Your task to perform on an android device: Open sound settings Image 0: 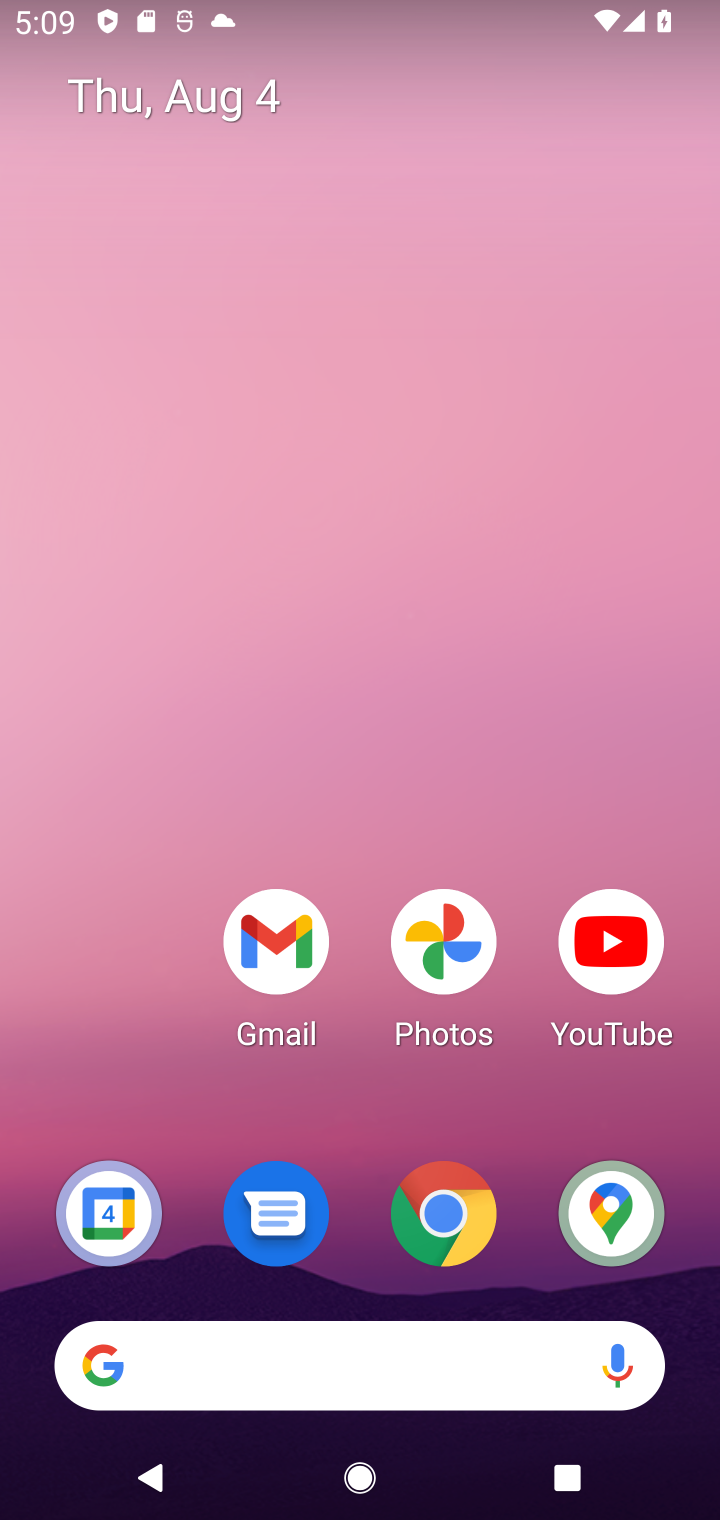
Step 0: drag from (133, 1004) to (111, 300)
Your task to perform on an android device: Open sound settings Image 1: 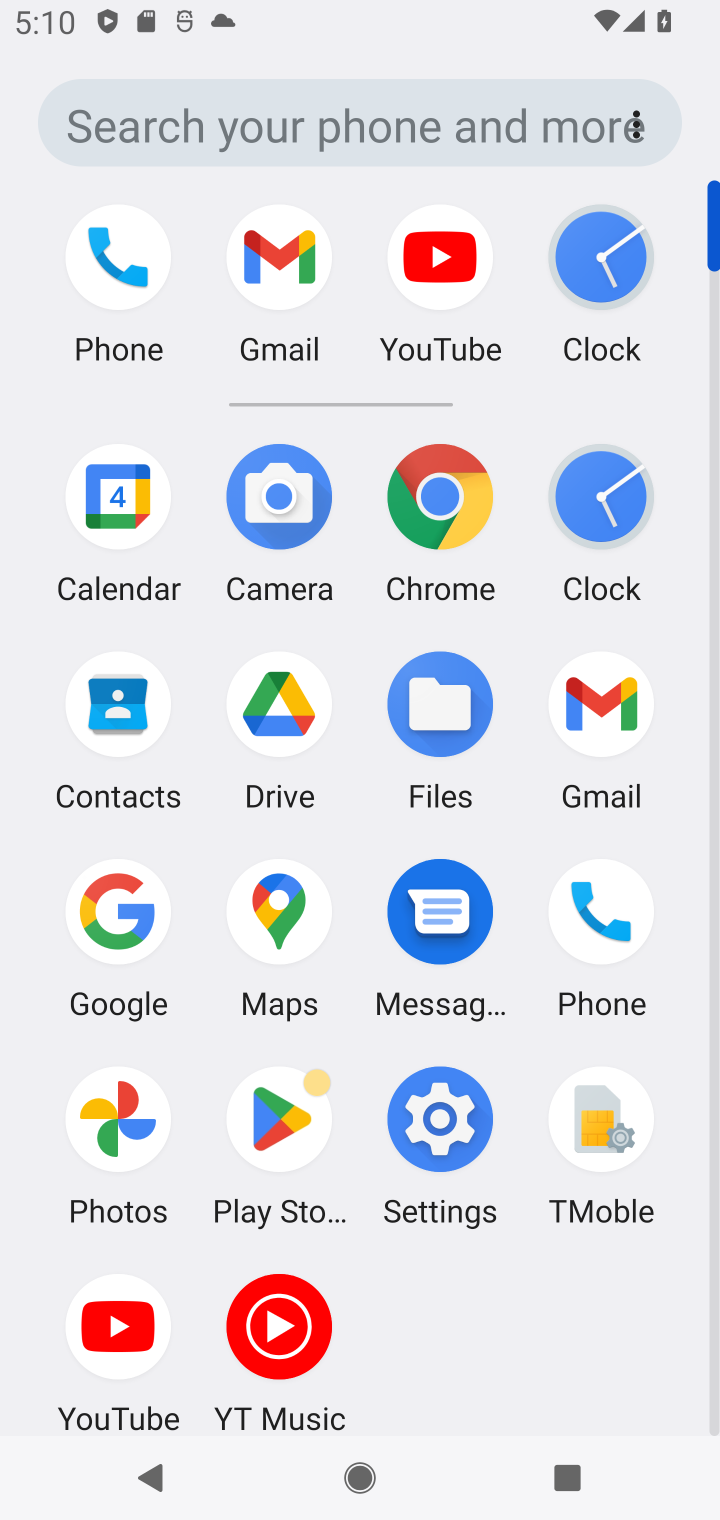
Step 1: click (455, 1122)
Your task to perform on an android device: Open sound settings Image 2: 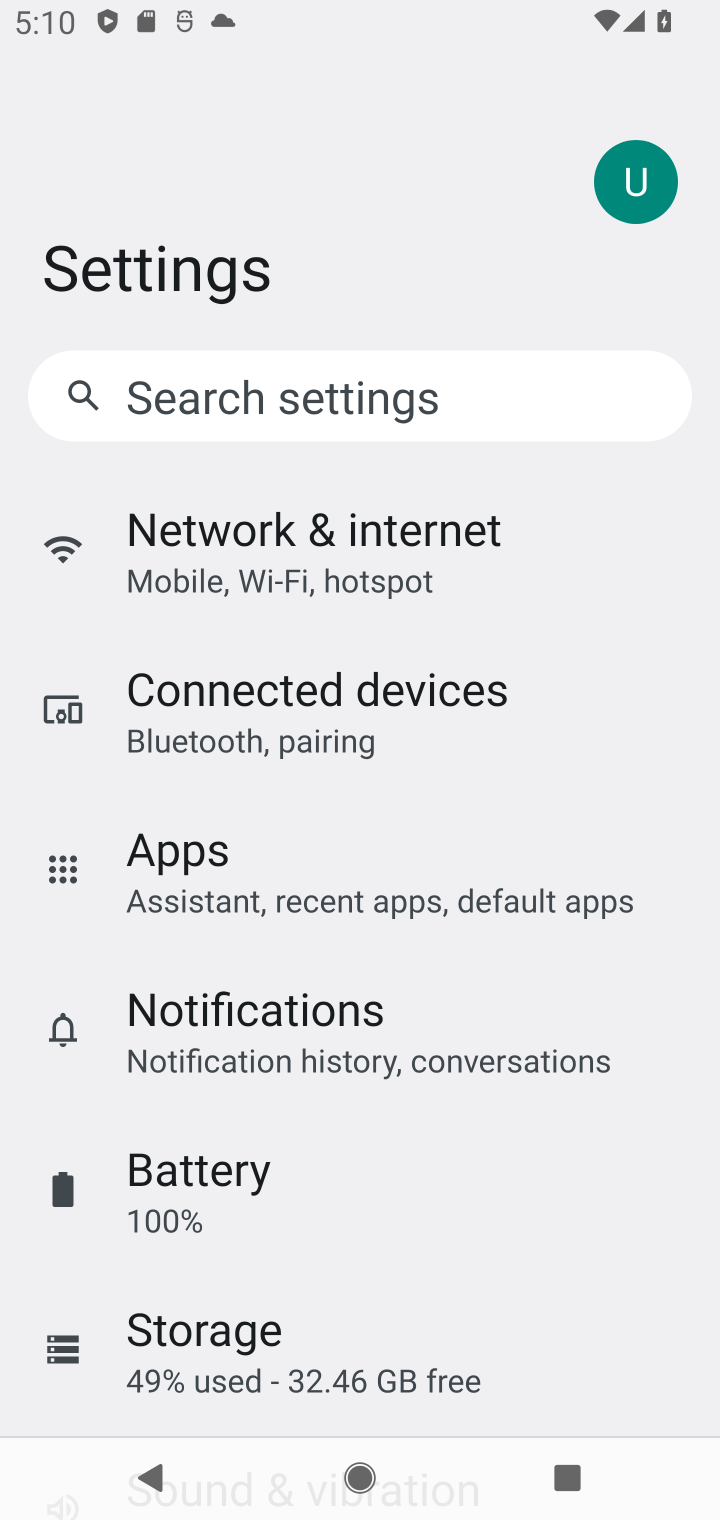
Step 2: drag from (594, 1232) to (629, 928)
Your task to perform on an android device: Open sound settings Image 3: 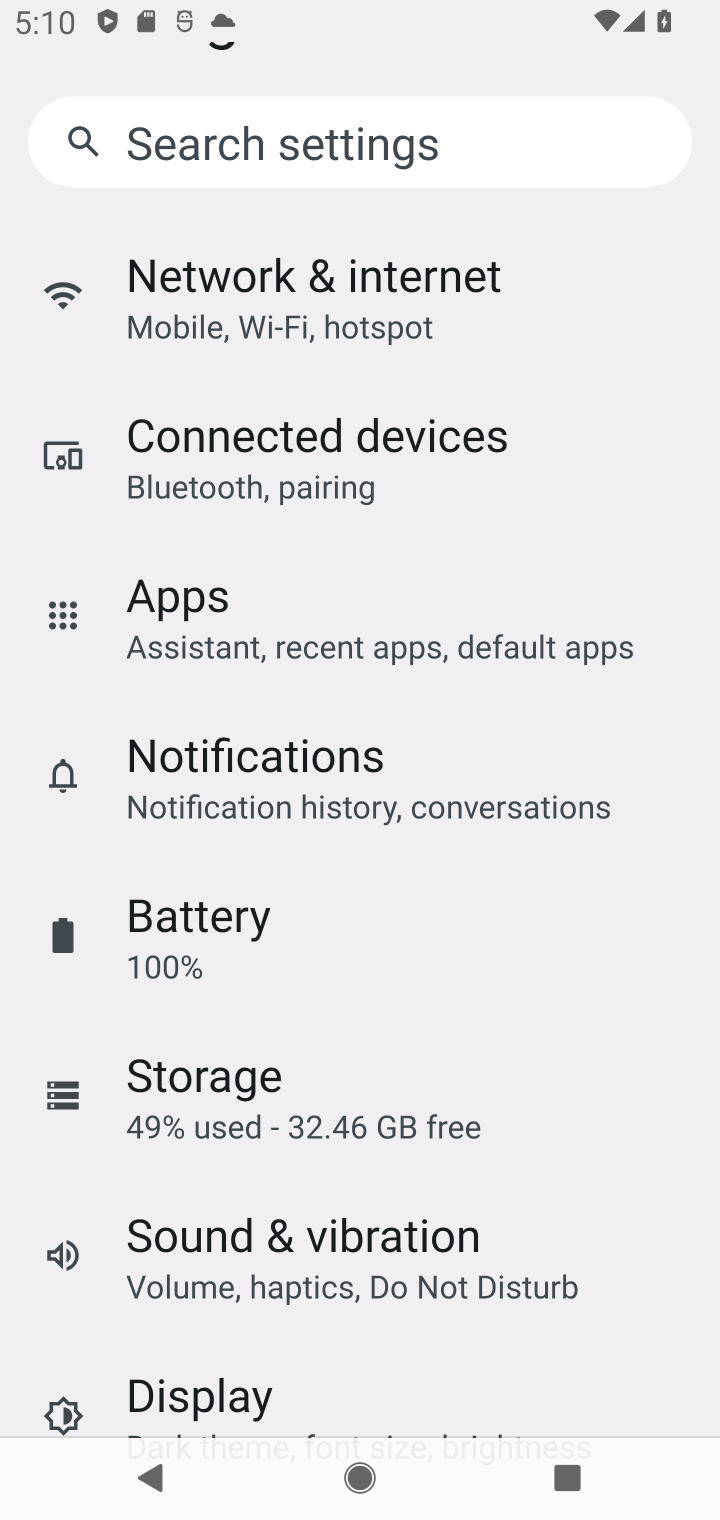
Step 3: drag from (642, 1270) to (603, 918)
Your task to perform on an android device: Open sound settings Image 4: 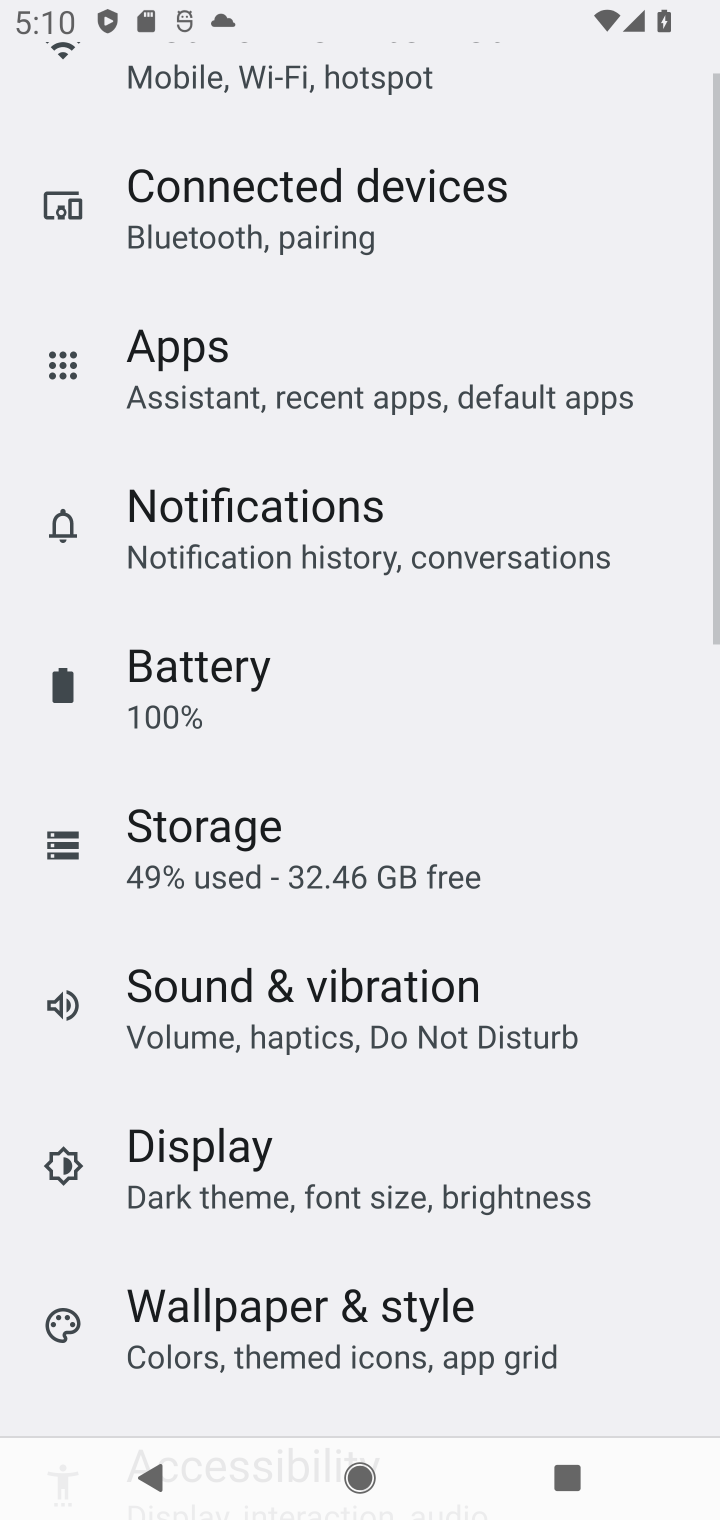
Step 4: drag from (615, 1312) to (611, 833)
Your task to perform on an android device: Open sound settings Image 5: 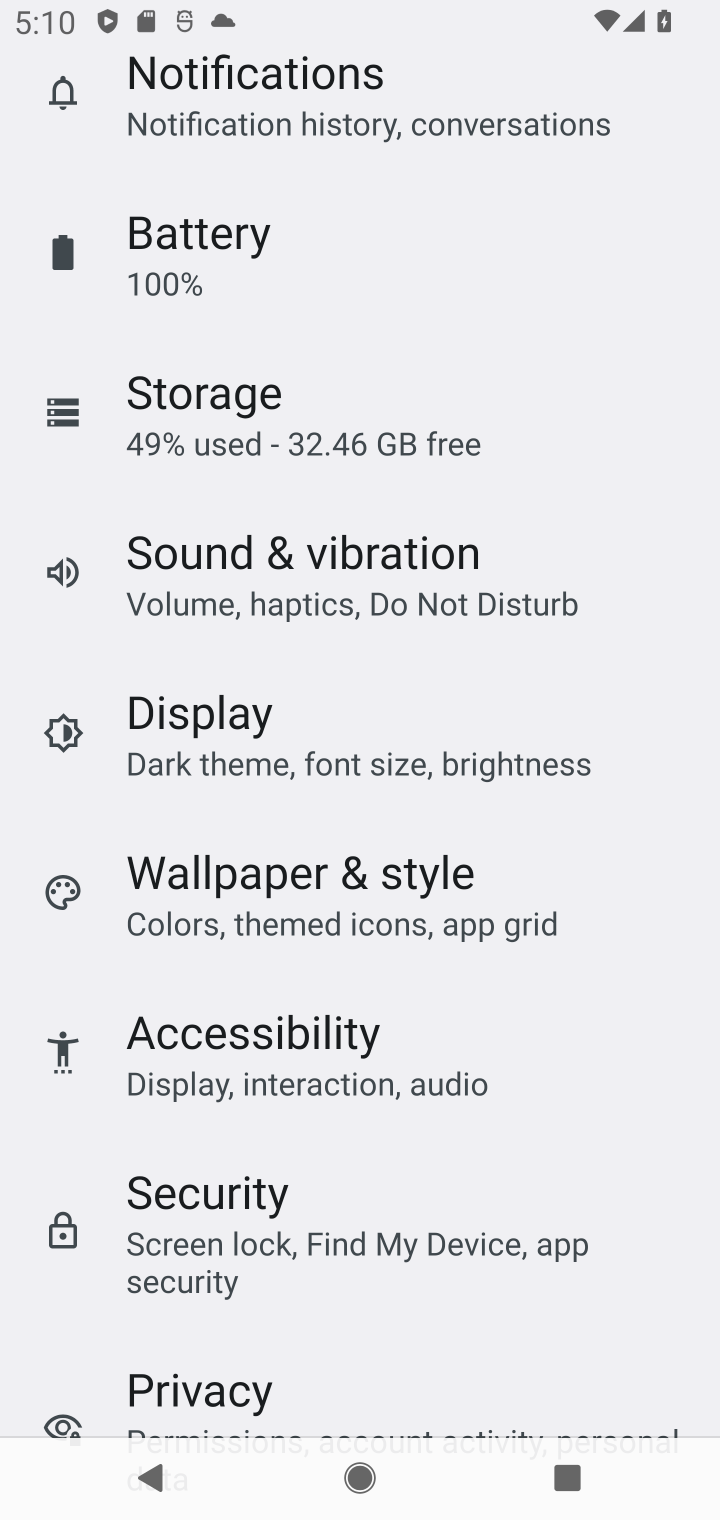
Step 5: drag from (636, 1273) to (608, 866)
Your task to perform on an android device: Open sound settings Image 6: 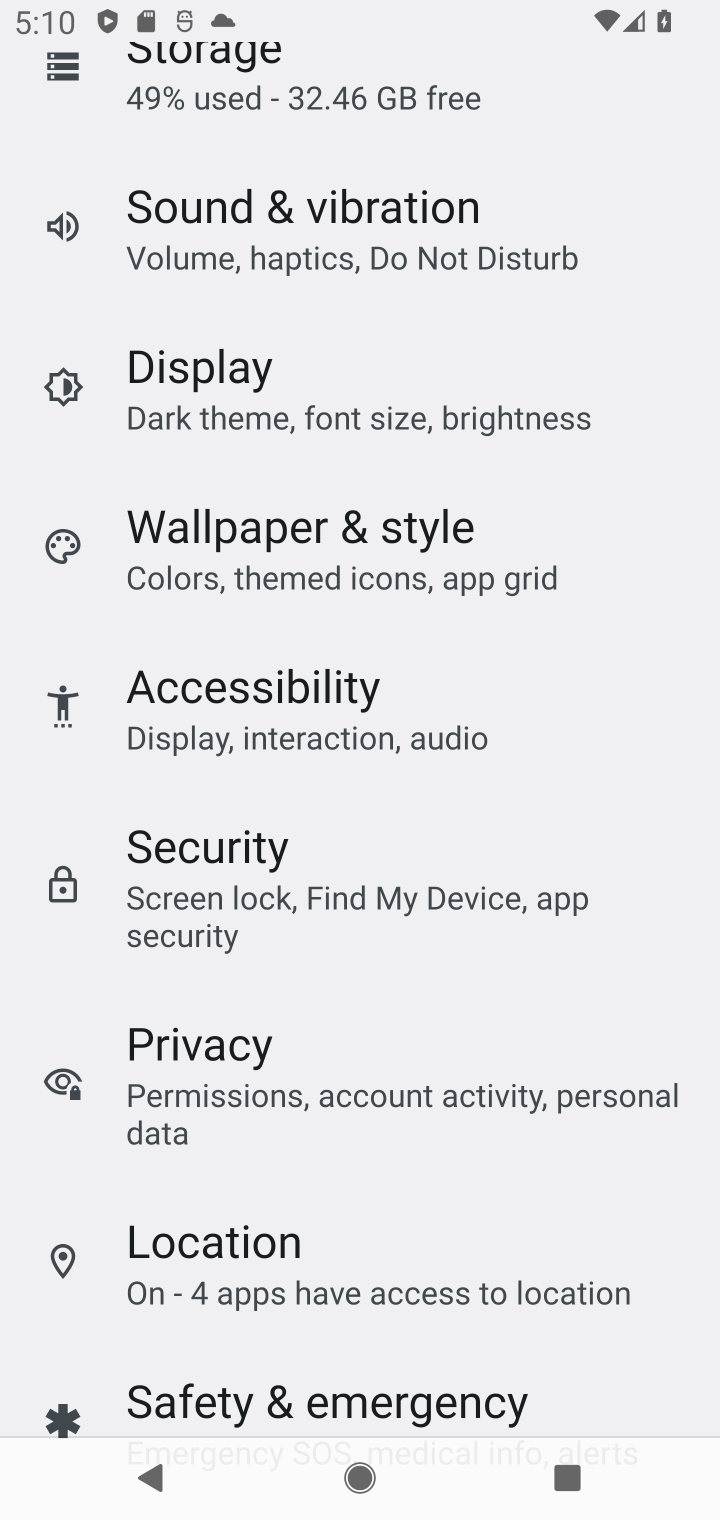
Step 6: click (518, 241)
Your task to perform on an android device: Open sound settings Image 7: 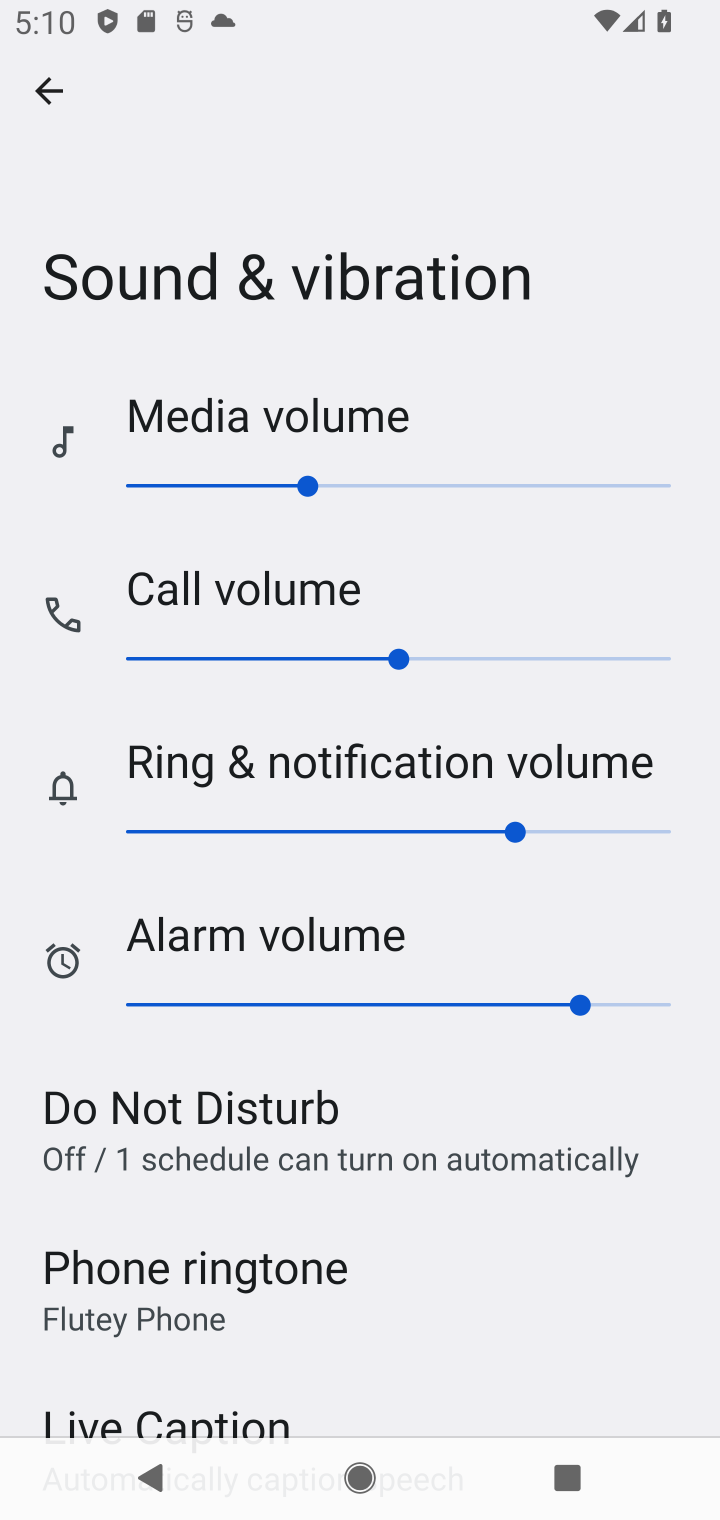
Step 7: task complete